Your task to perform on an android device: allow notifications from all sites in the chrome app Image 0: 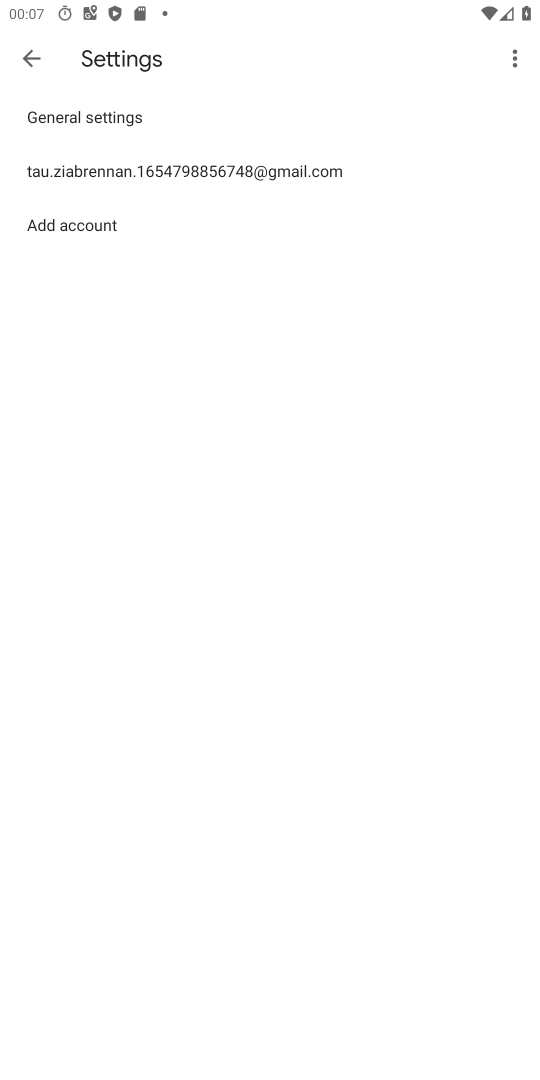
Step 0: press home button
Your task to perform on an android device: allow notifications from all sites in the chrome app Image 1: 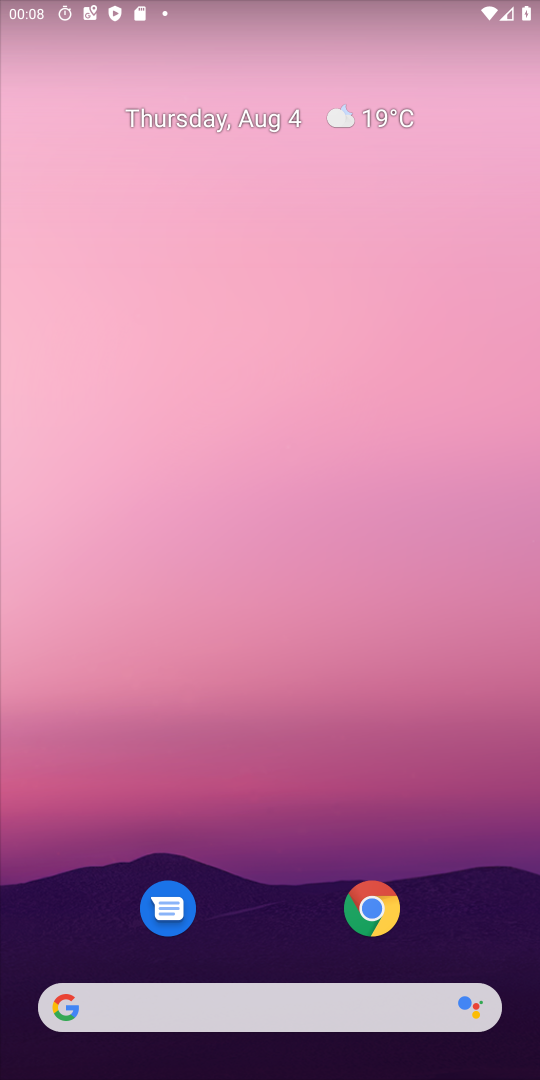
Step 1: drag from (365, 1022) to (406, 290)
Your task to perform on an android device: allow notifications from all sites in the chrome app Image 2: 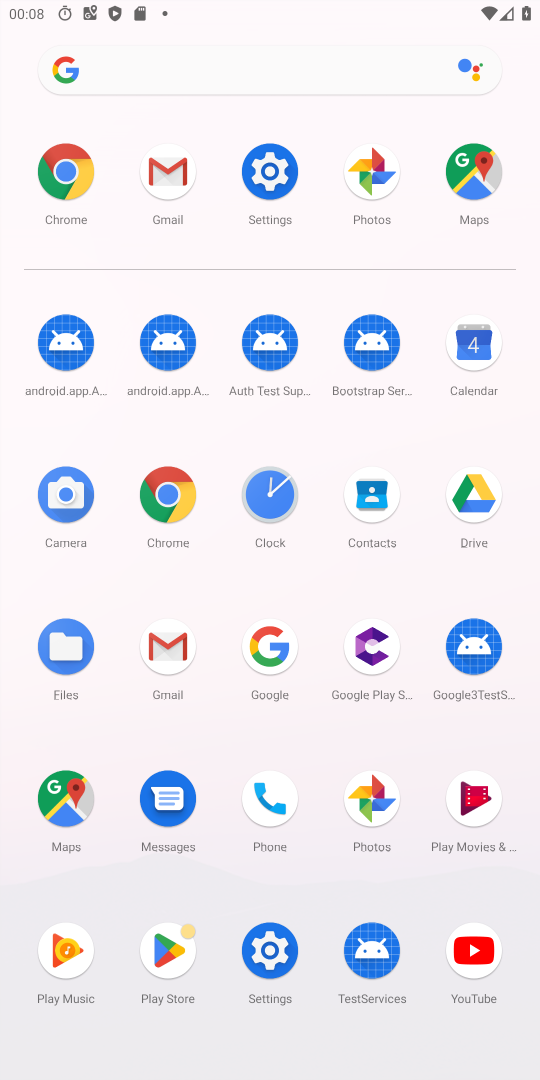
Step 2: click (85, 188)
Your task to perform on an android device: allow notifications from all sites in the chrome app Image 3: 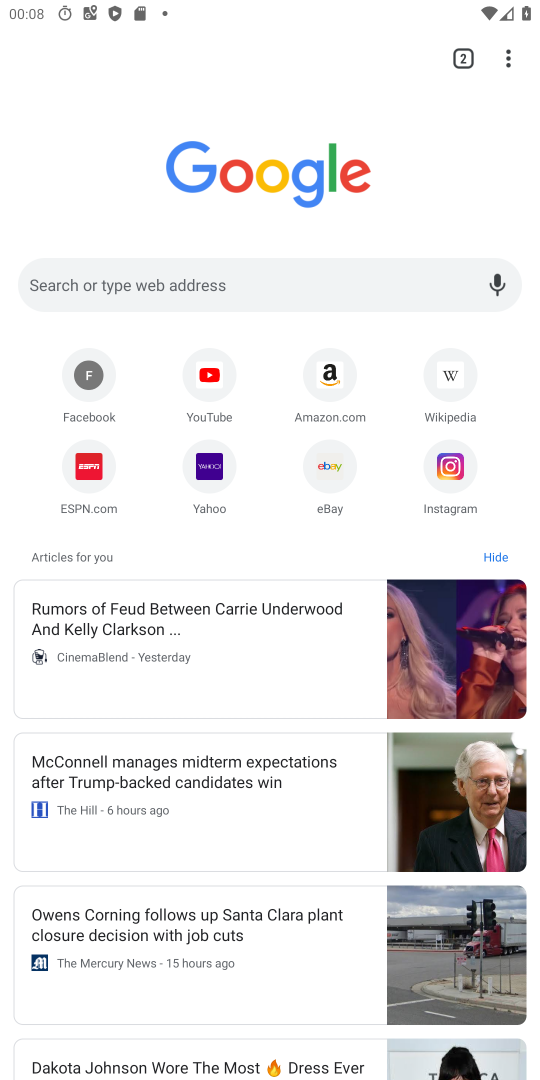
Step 3: click (510, 54)
Your task to perform on an android device: allow notifications from all sites in the chrome app Image 4: 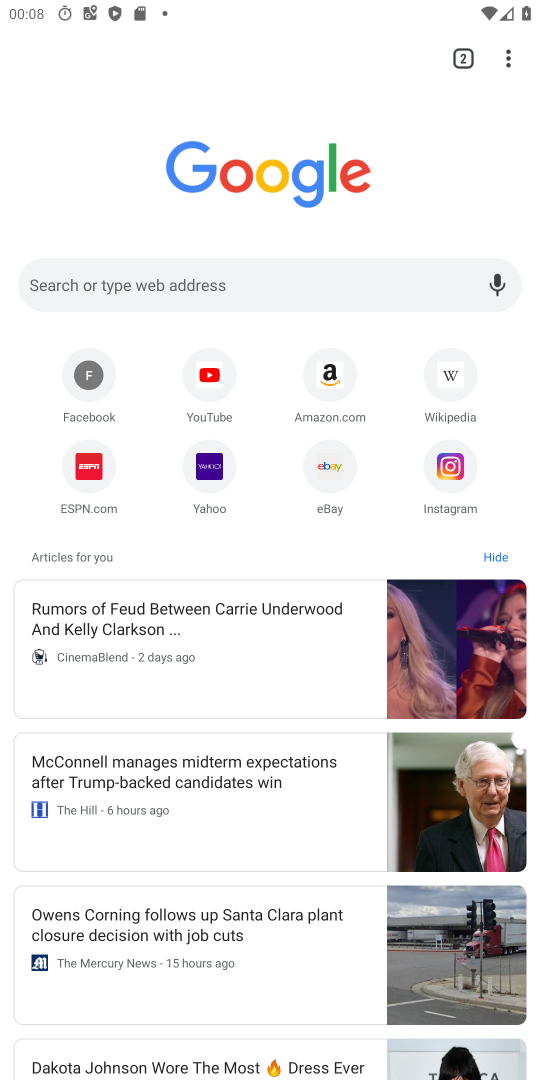
Step 4: click (503, 67)
Your task to perform on an android device: allow notifications from all sites in the chrome app Image 5: 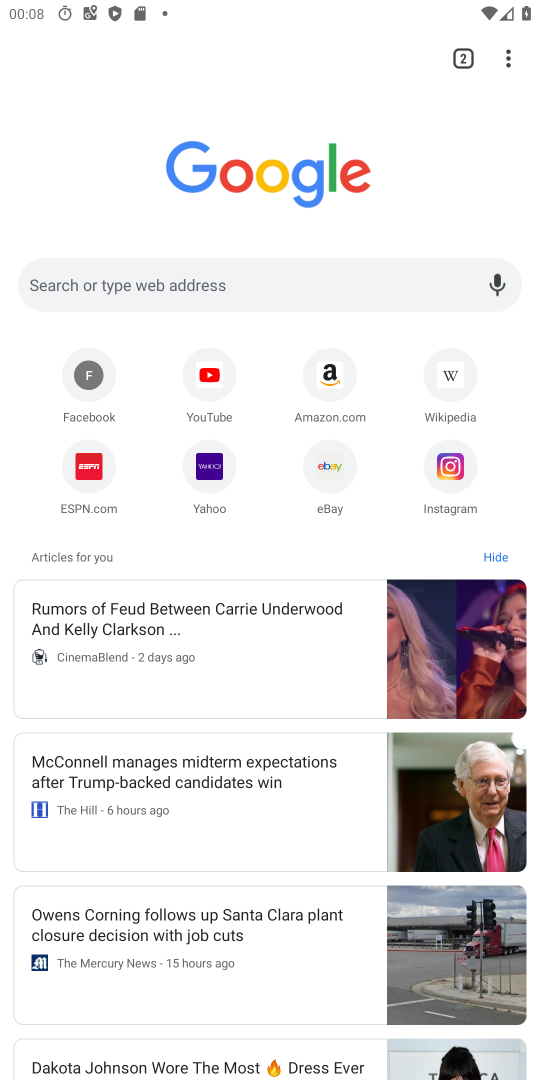
Step 5: click (506, 87)
Your task to perform on an android device: allow notifications from all sites in the chrome app Image 6: 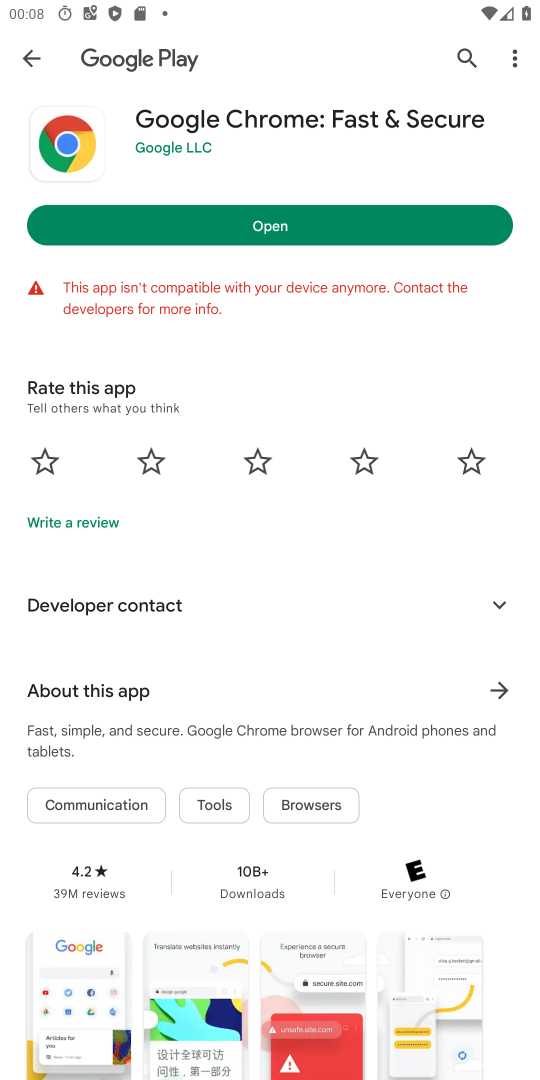
Step 6: press back button
Your task to perform on an android device: allow notifications from all sites in the chrome app Image 7: 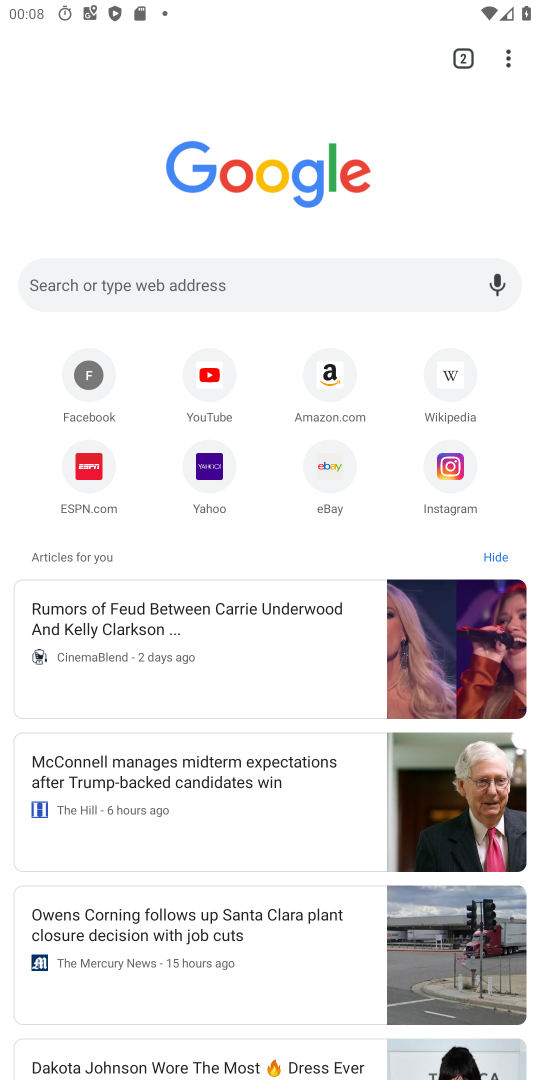
Step 7: click (509, 57)
Your task to perform on an android device: allow notifications from all sites in the chrome app Image 8: 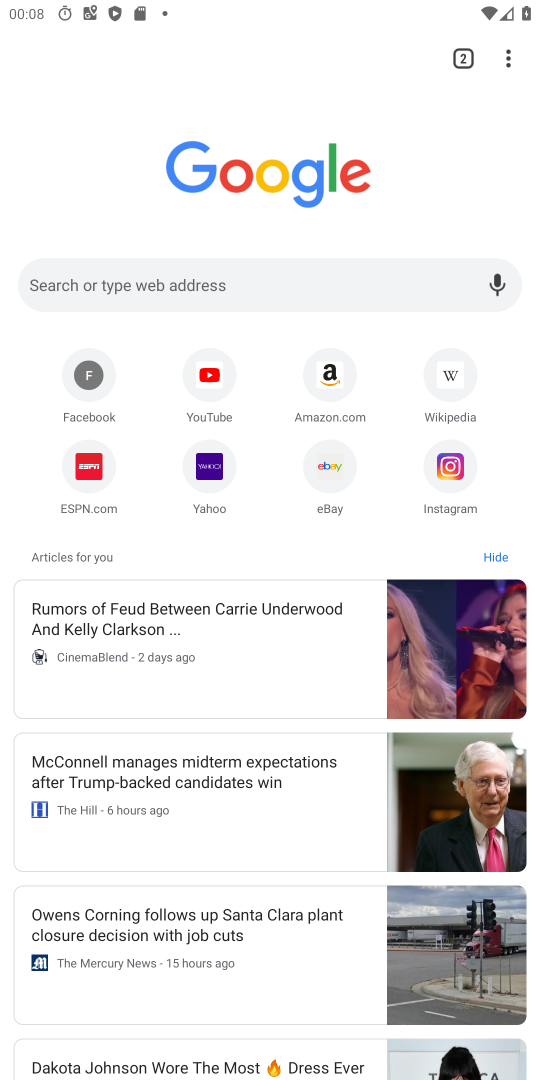
Step 8: click (495, 58)
Your task to perform on an android device: allow notifications from all sites in the chrome app Image 9: 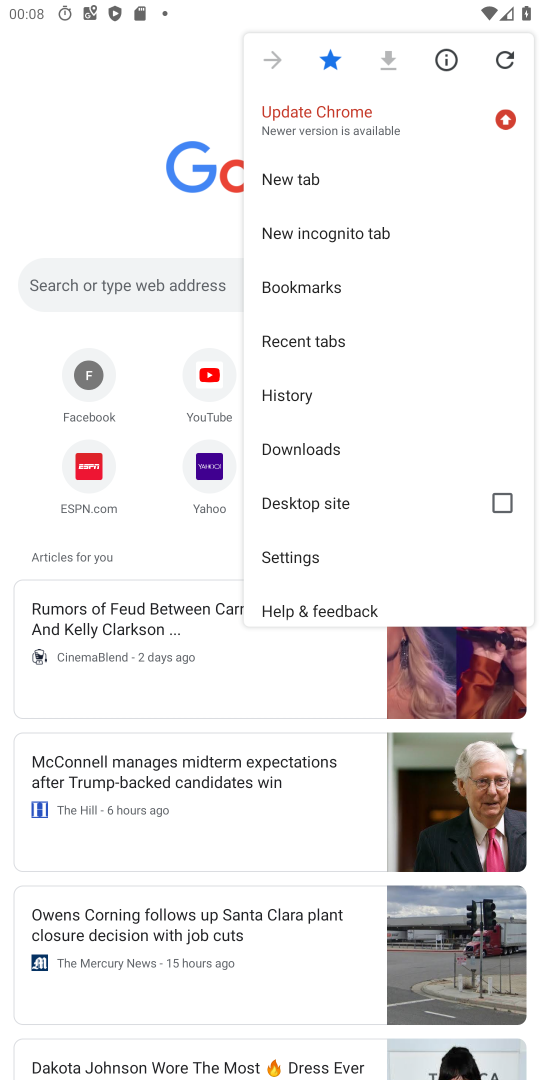
Step 9: click (284, 567)
Your task to perform on an android device: allow notifications from all sites in the chrome app Image 10: 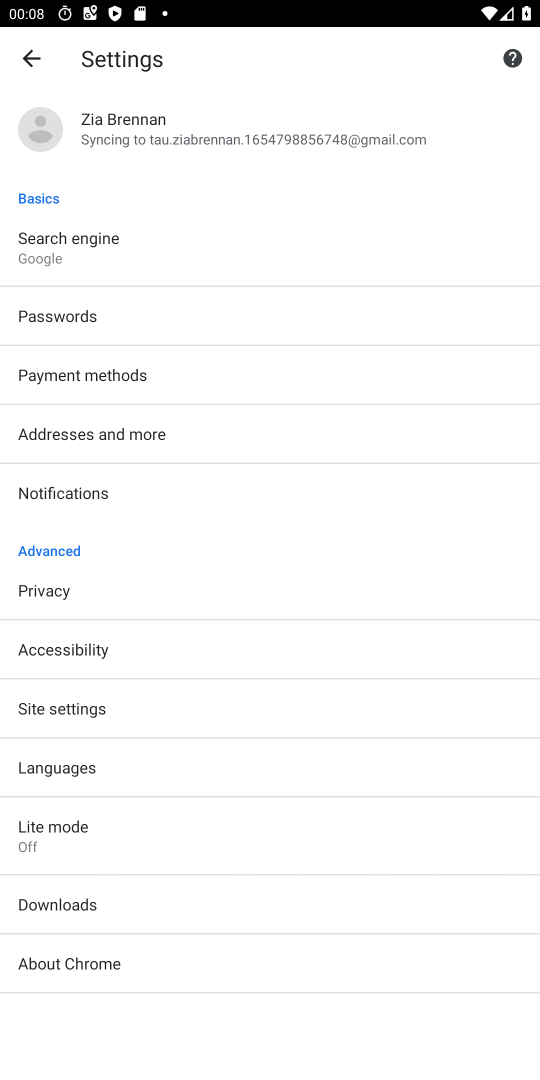
Step 10: click (103, 709)
Your task to perform on an android device: allow notifications from all sites in the chrome app Image 11: 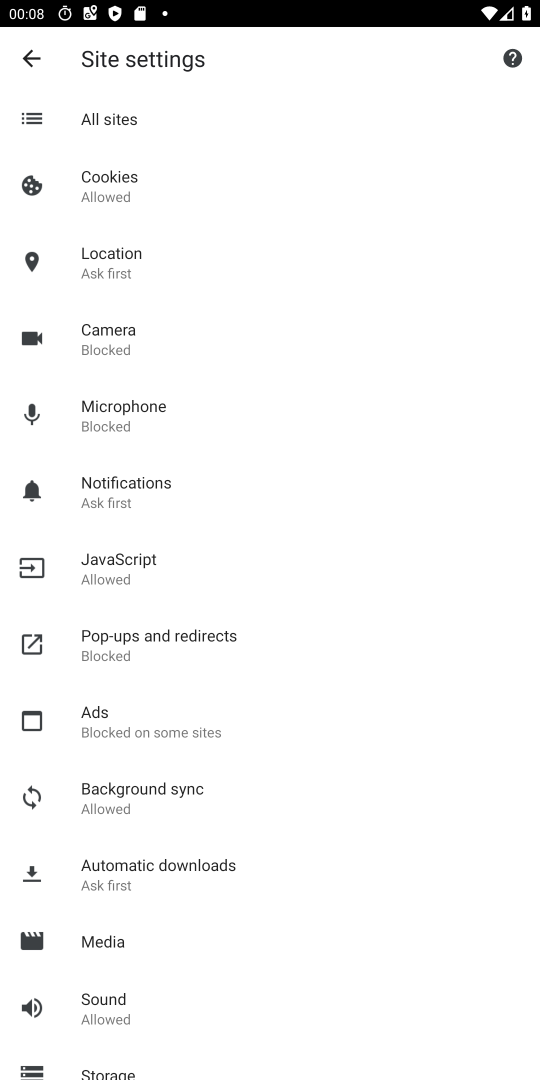
Step 11: click (148, 498)
Your task to perform on an android device: allow notifications from all sites in the chrome app Image 12: 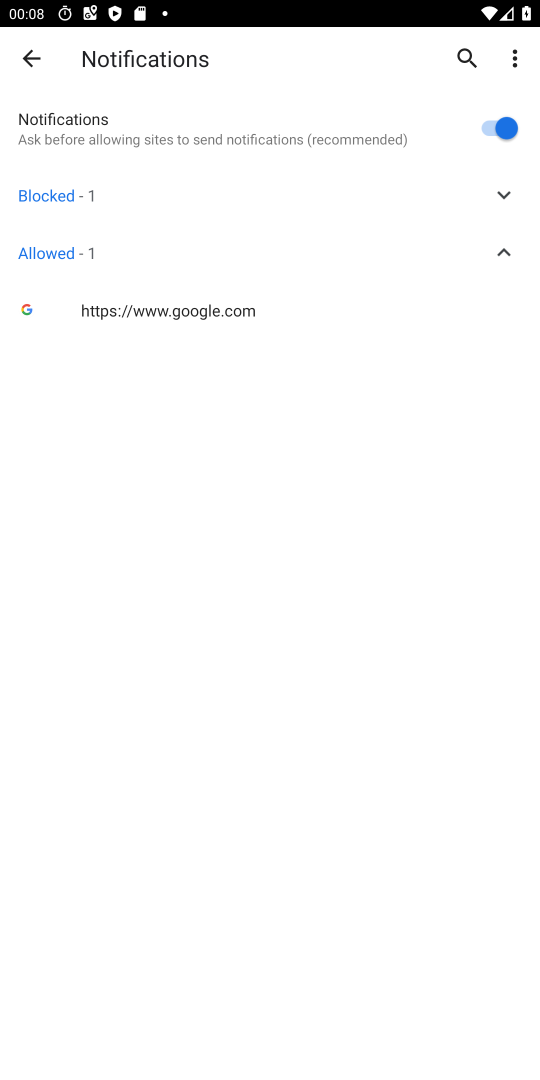
Step 12: click (233, 137)
Your task to perform on an android device: allow notifications from all sites in the chrome app Image 13: 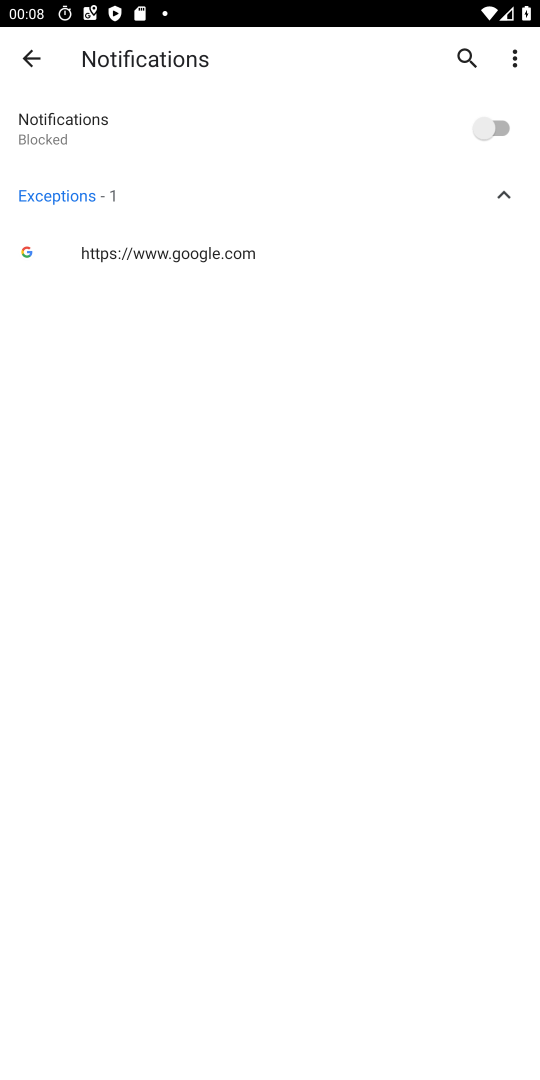
Step 13: click (233, 137)
Your task to perform on an android device: allow notifications from all sites in the chrome app Image 14: 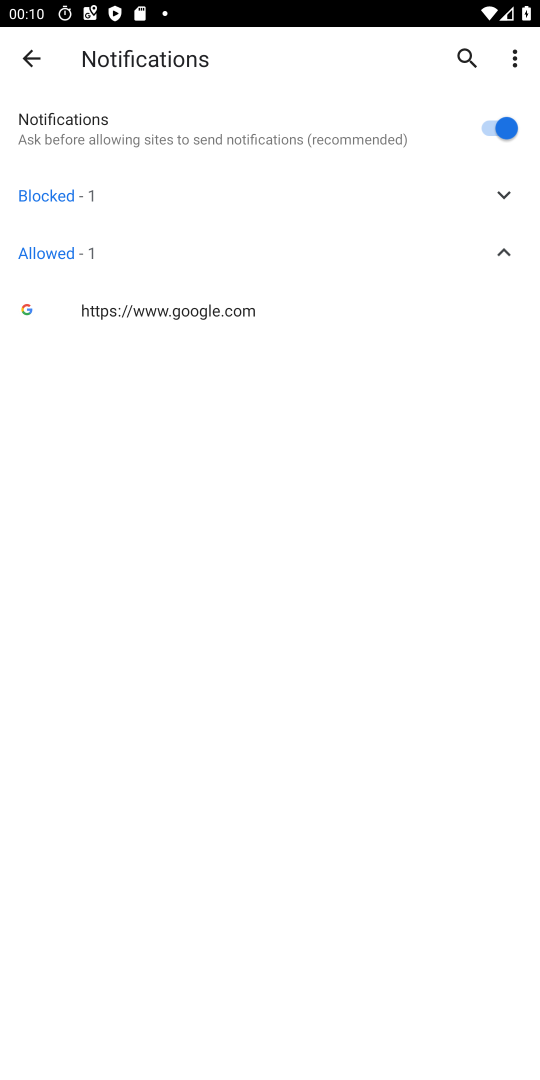
Step 14: task complete